Your task to perform on an android device: Open Google Chrome and open the bookmarks view Image 0: 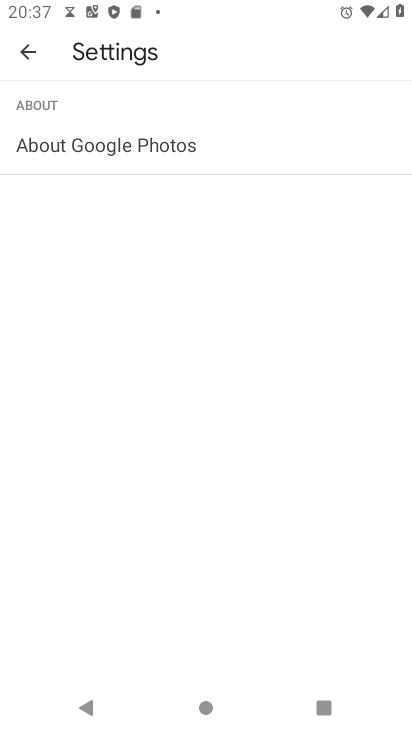
Step 0: press home button
Your task to perform on an android device: Open Google Chrome and open the bookmarks view Image 1: 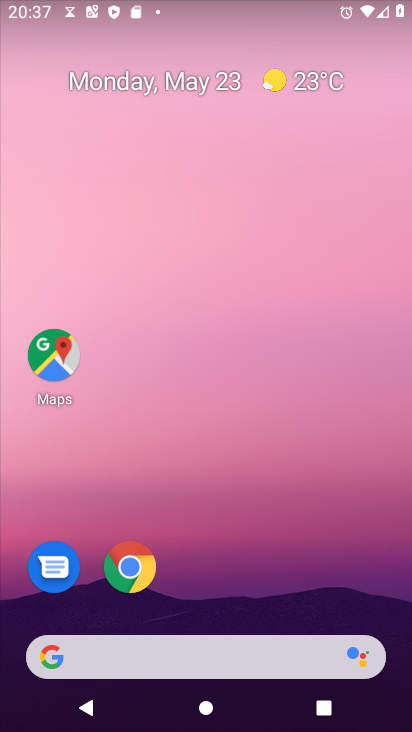
Step 1: click (60, 359)
Your task to perform on an android device: Open Google Chrome and open the bookmarks view Image 2: 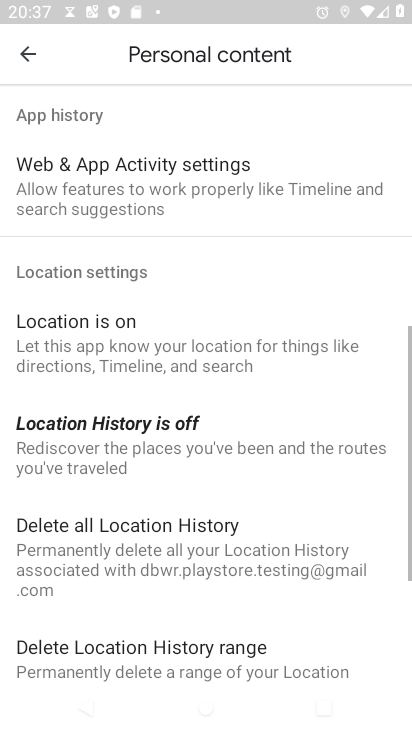
Step 2: press home button
Your task to perform on an android device: Open Google Chrome and open the bookmarks view Image 3: 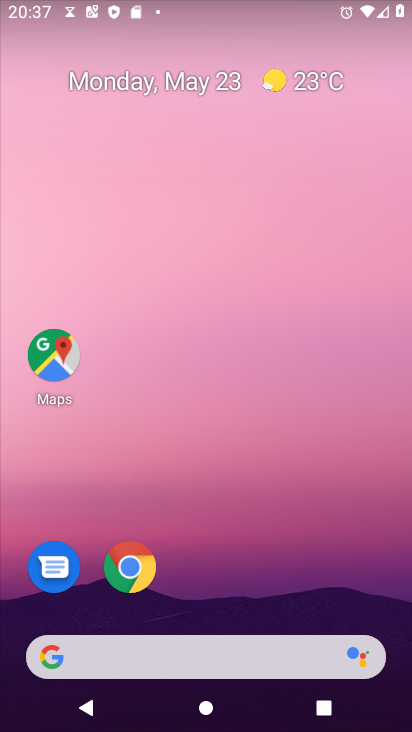
Step 3: click (116, 555)
Your task to perform on an android device: Open Google Chrome and open the bookmarks view Image 4: 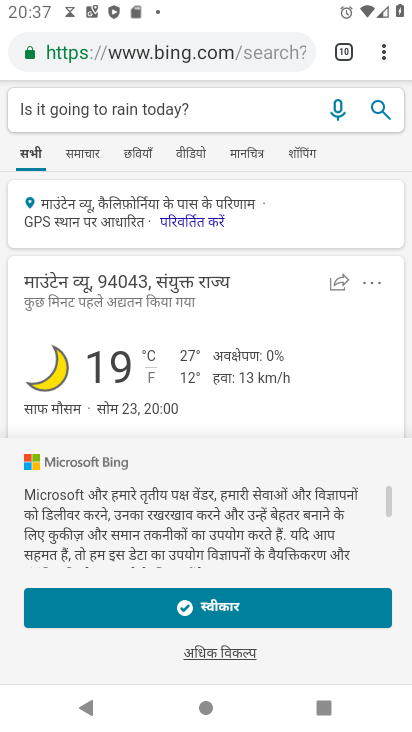
Step 4: click (387, 50)
Your task to perform on an android device: Open Google Chrome and open the bookmarks view Image 5: 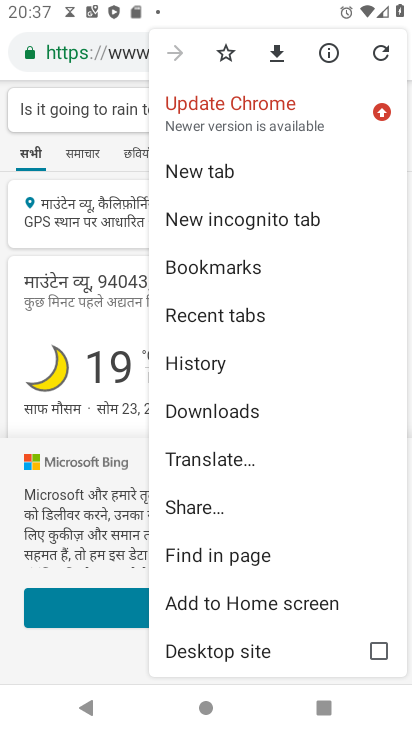
Step 5: click (235, 268)
Your task to perform on an android device: Open Google Chrome and open the bookmarks view Image 6: 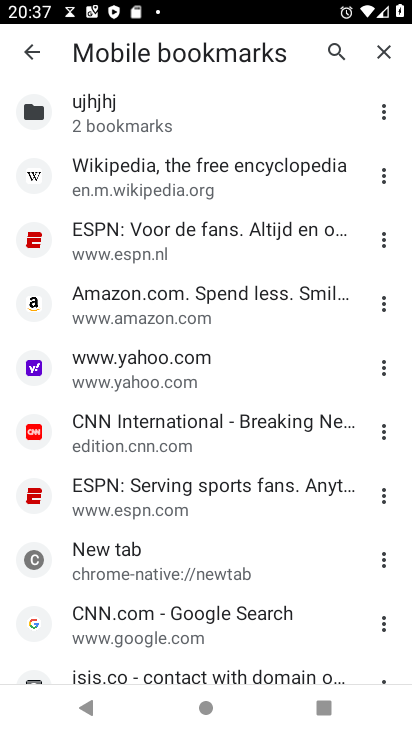
Step 6: task complete